Your task to perform on an android device: Show me recent news Image 0: 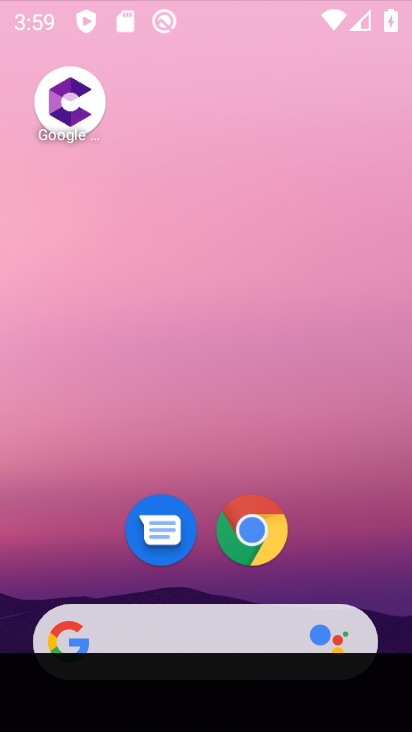
Step 0: press home button
Your task to perform on an android device: Show me recent news Image 1: 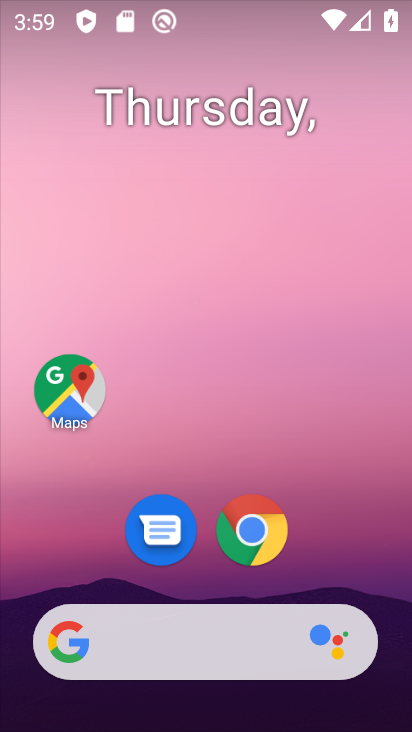
Step 1: click (249, 523)
Your task to perform on an android device: Show me recent news Image 2: 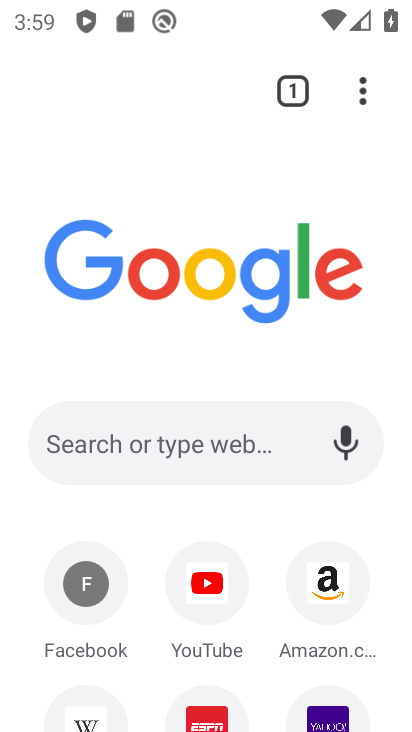
Step 2: drag from (373, 82) to (60, 75)
Your task to perform on an android device: Show me recent news Image 3: 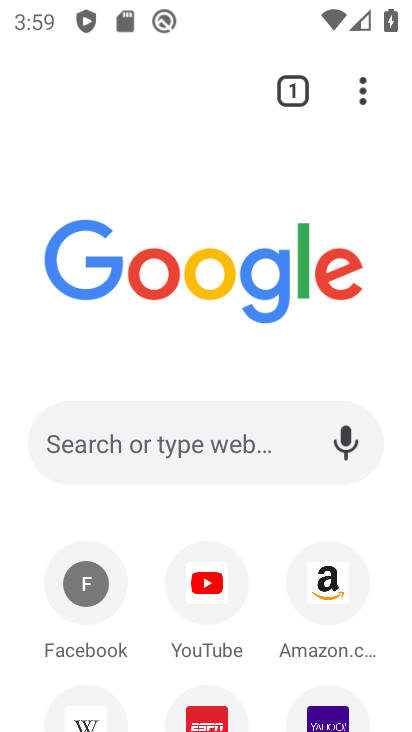
Step 3: click (179, 448)
Your task to perform on an android device: Show me recent news Image 4: 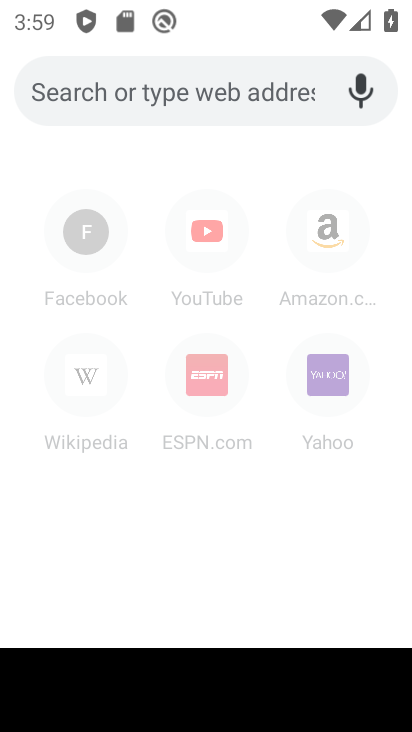
Step 4: type "news"
Your task to perform on an android device: Show me recent news Image 5: 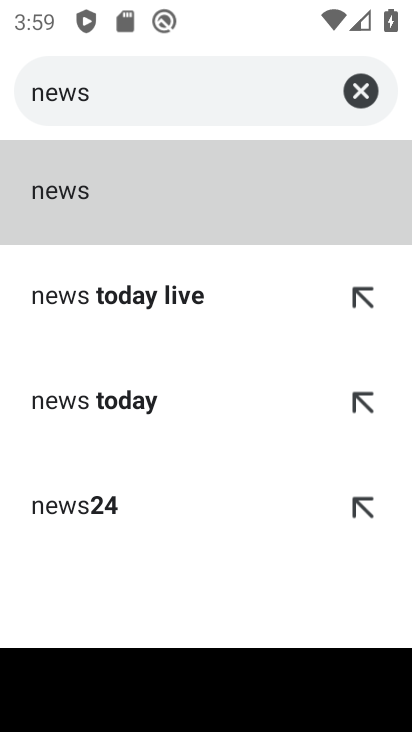
Step 5: click (98, 195)
Your task to perform on an android device: Show me recent news Image 6: 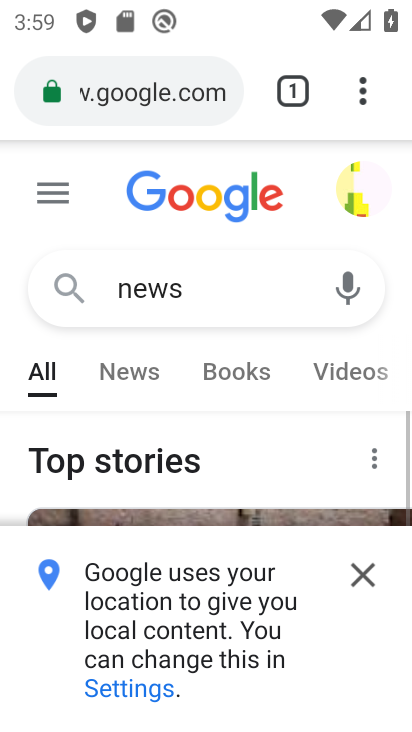
Step 6: drag from (170, 435) to (227, 110)
Your task to perform on an android device: Show me recent news Image 7: 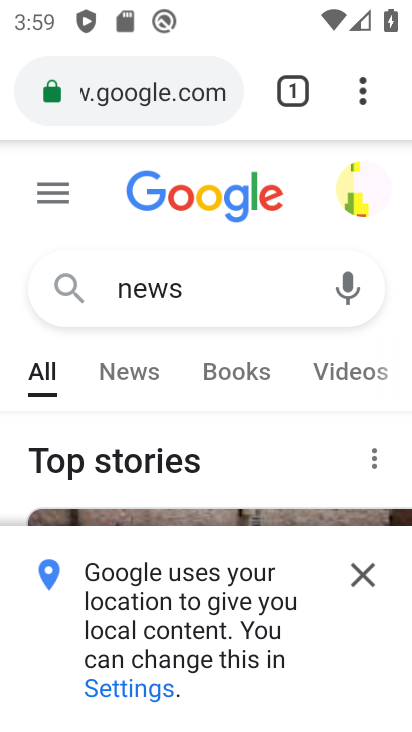
Step 7: click (152, 387)
Your task to perform on an android device: Show me recent news Image 8: 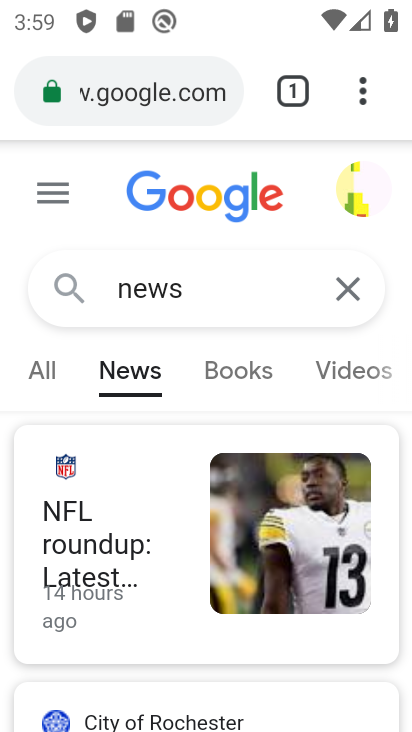
Step 8: task complete